Your task to perform on an android device: make emails show in primary in the gmail app Image 0: 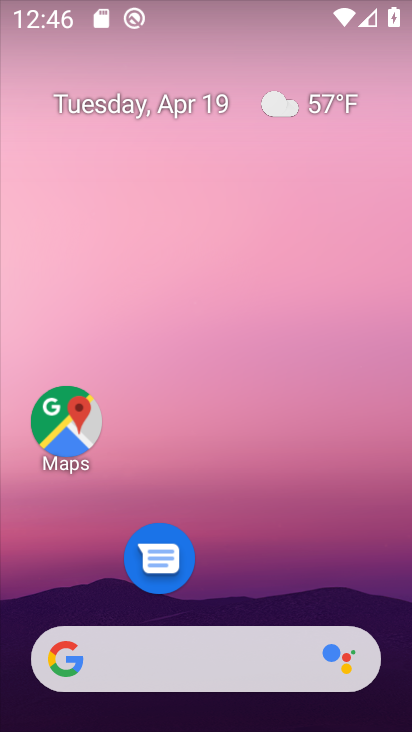
Step 0: drag from (241, 543) to (162, 77)
Your task to perform on an android device: make emails show in primary in the gmail app Image 1: 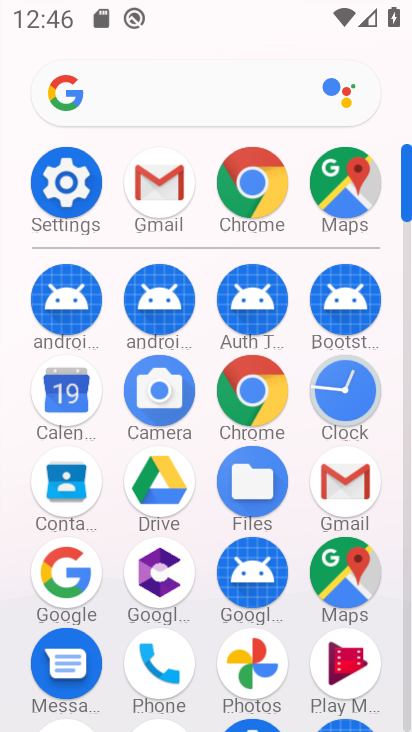
Step 1: click (348, 508)
Your task to perform on an android device: make emails show in primary in the gmail app Image 2: 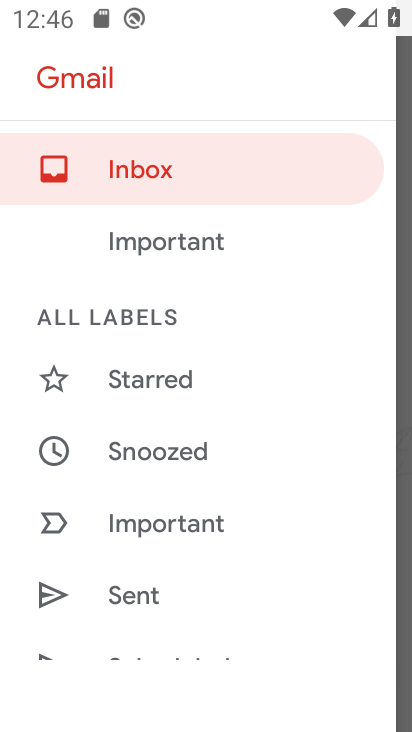
Step 2: drag from (206, 200) to (187, 328)
Your task to perform on an android device: make emails show in primary in the gmail app Image 3: 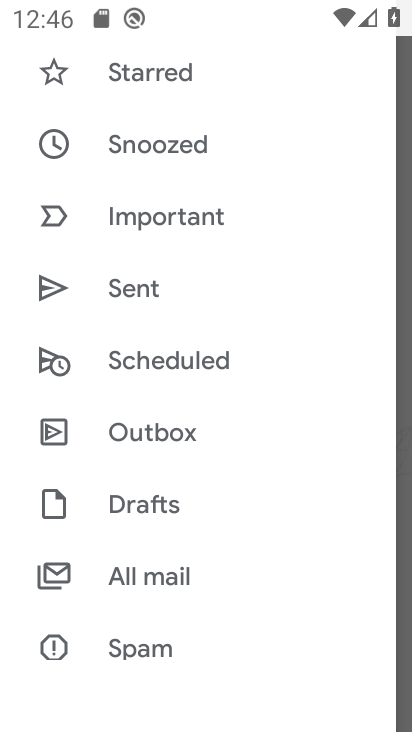
Step 3: press back button
Your task to perform on an android device: make emails show in primary in the gmail app Image 4: 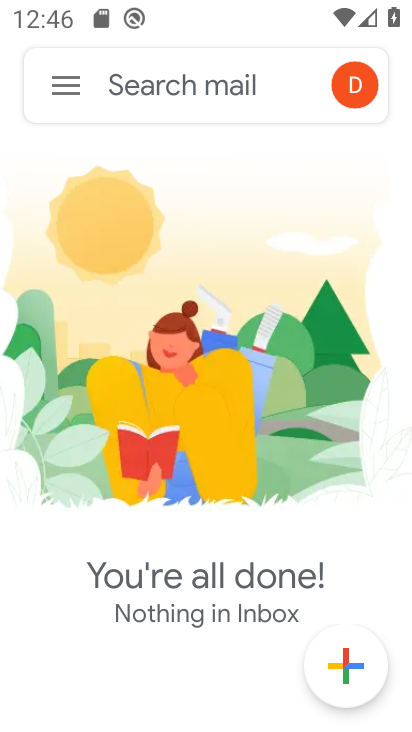
Step 4: click (68, 85)
Your task to perform on an android device: make emails show in primary in the gmail app Image 5: 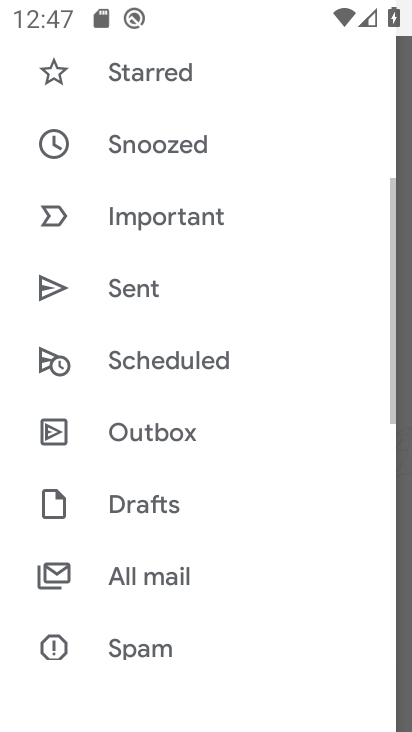
Step 5: drag from (132, 660) to (131, 163)
Your task to perform on an android device: make emails show in primary in the gmail app Image 6: 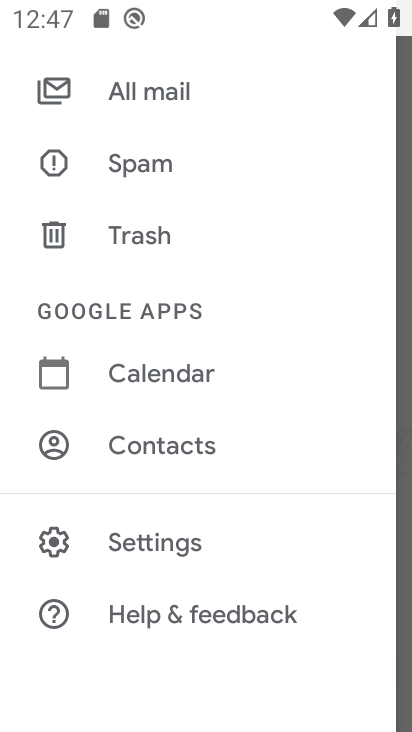
Step 6: click (121, 538)
Your task to perform on an android device: make emails show in primary in the gmail app Image 7: 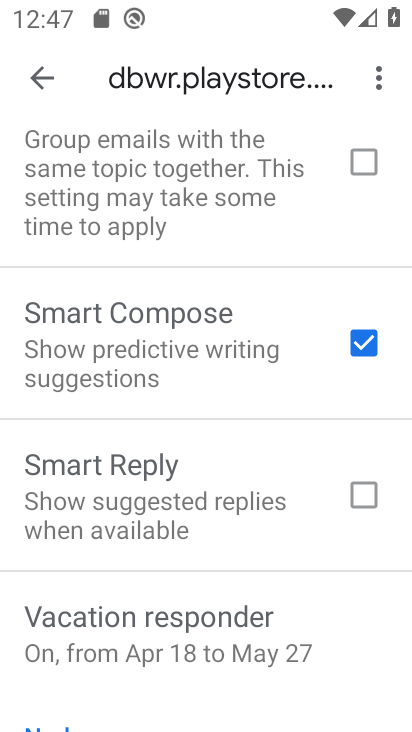
Step 7: drag from (153, 191) to (175, 603)
Your task to perform on an android device: make emails show in primary in the gmail app Image 8: 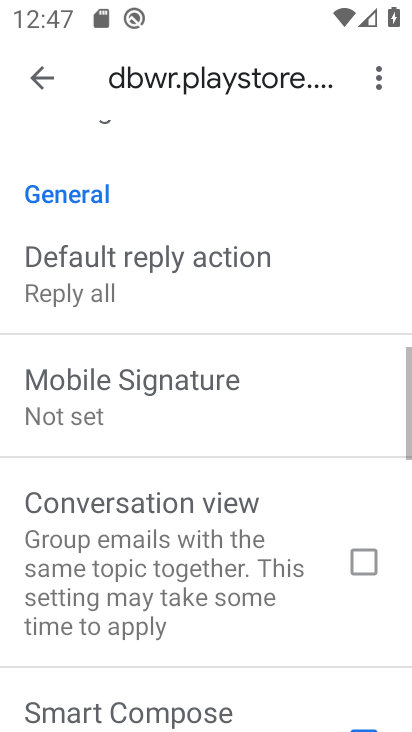
Step 8: drag from (117, 193) to (133, 606)
Your task to perform on an android device: make emails show in primary in the gmail app Image 9: 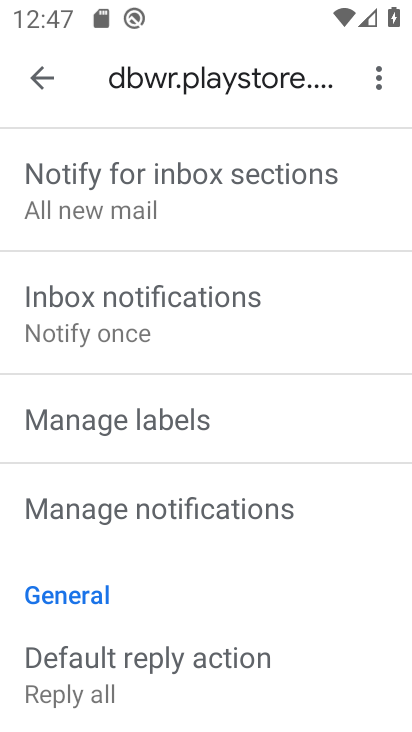
Step 9: drag from (192, 343) to (213, 704)
Your task to perform on an android device: make emails show in primary in the gmail app Image 10: 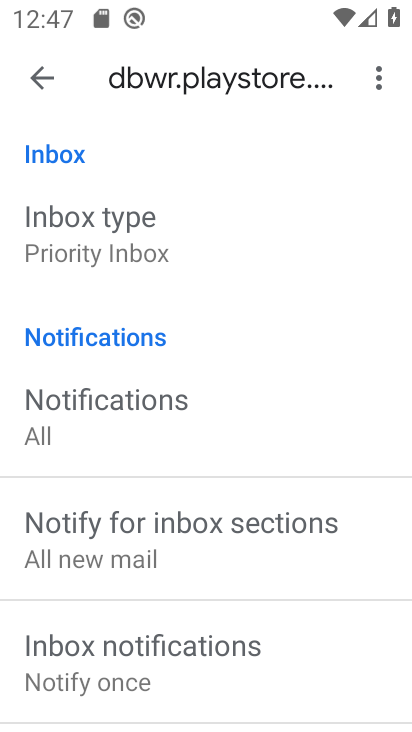
Step 10: click (116, 255)
Your task to perform on an android device: make emails show in primary in the gmail app Image 11: 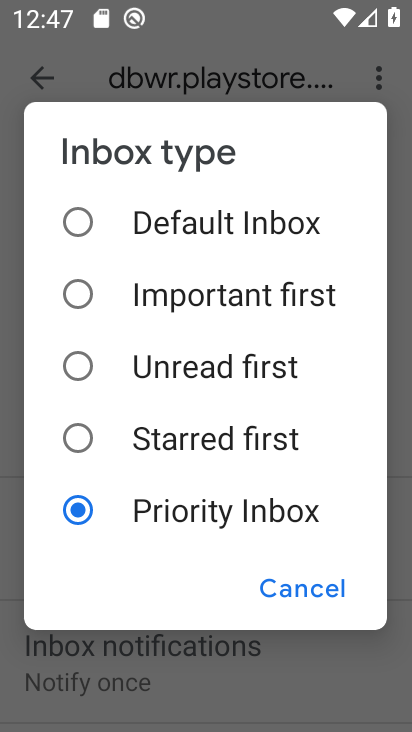
Step 11: click (79, 226)
Your task to perform on an android device: make emails show in primary in the gmail app Image 12: 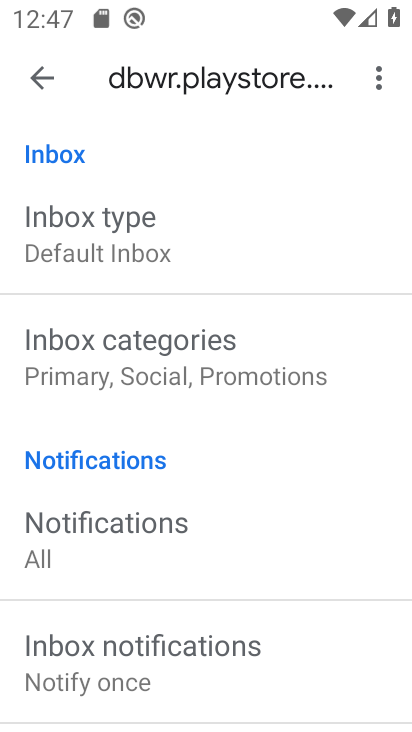
Step 12: press back button
Your task to perform on an android device: make emails show in primary in the gmail app Image 13: 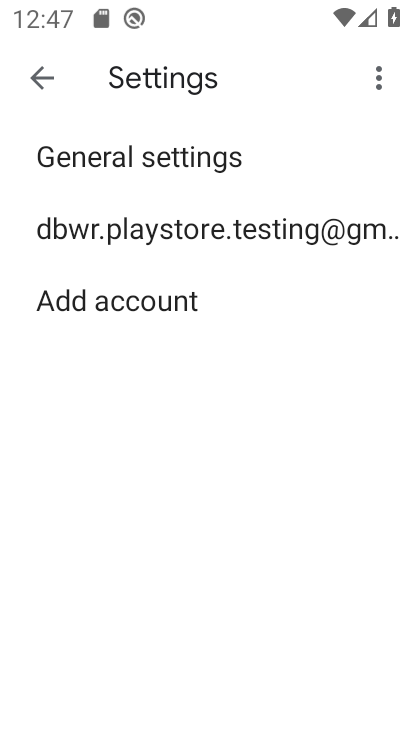
Step 13: press back button
Your task to perform on an android device: make emails show in primary in the gmail app Image 14: 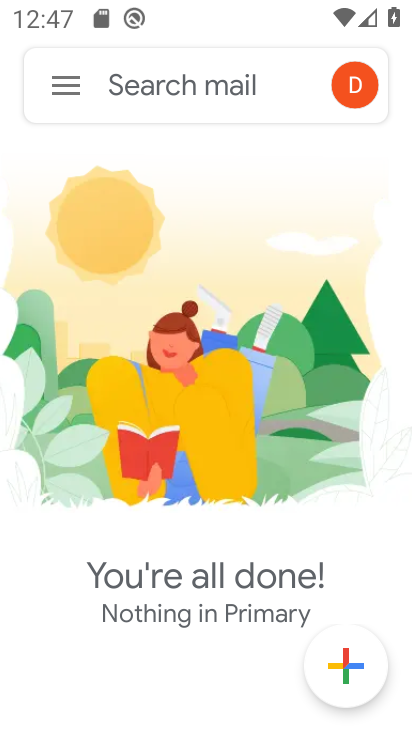
Step 14: click (71, 86)
Your task to perform on an android device: make emails show in primary in the gmail app Image 15: 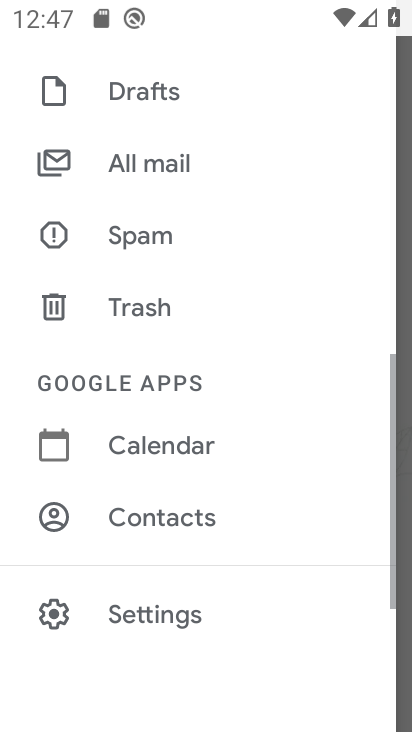
Step 15: task complete